Your task to perform on an android device: Open Google Image 0: 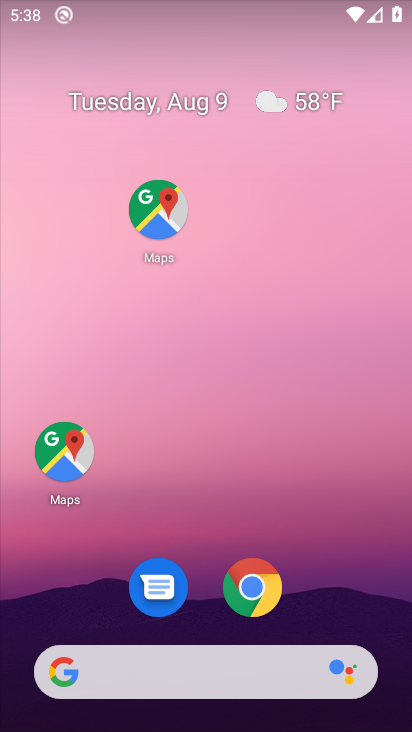
Step 0: drag from (103, 521) to (118, 168)
Your task to perform on an android device: Open Google Image 1: 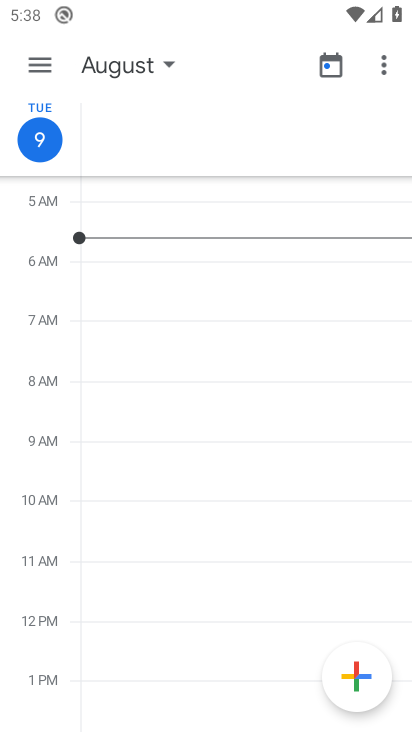
Step 1: press back button
Your task to perform on an android device: Open Google Image 2: 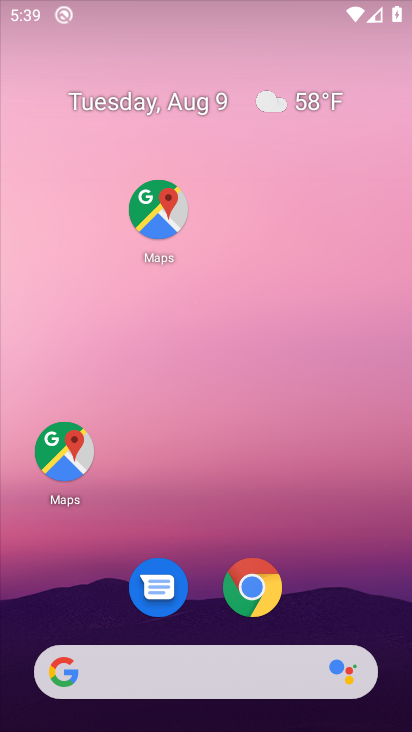
Step 2: drag from (261, 605) to (251, 104)
Your task to perform on an android device: Open Google Image 3: 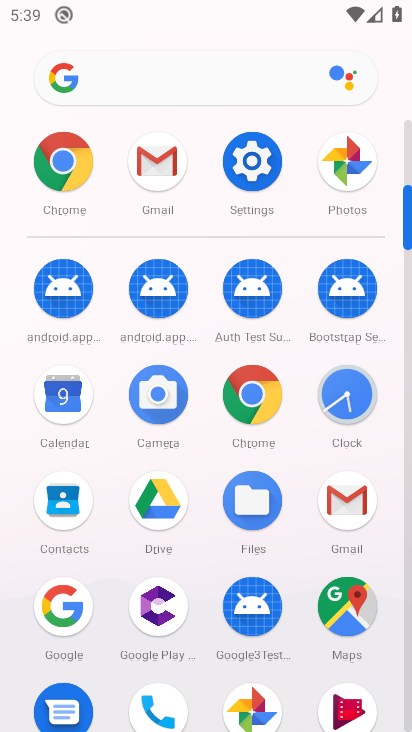
Step 3: click (65, 619)
Your task to perform on an android device: Open Google Image 4: 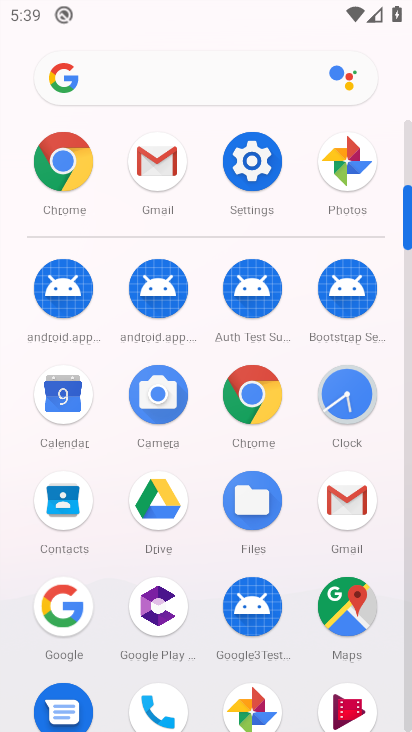
Step 4: click (66, 613)
Your task to perform on an android device: Open Google Image 5: 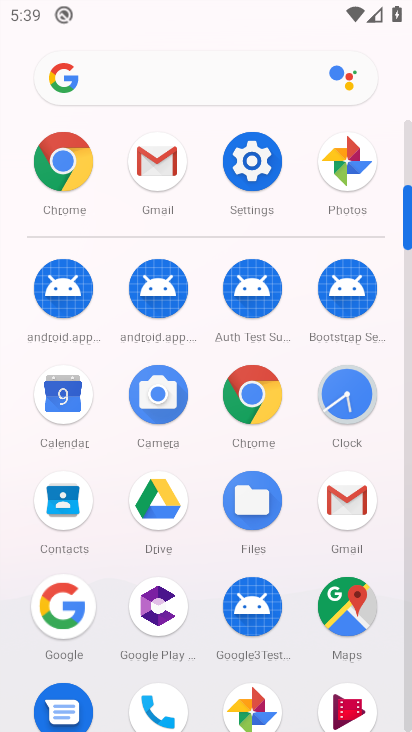
Step 5: click (59, 622)
Your task to perform on an android device: Open Google Image 6: 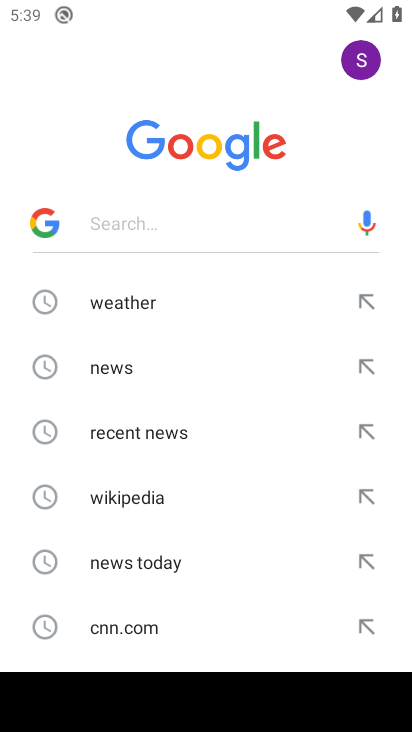
Step 6: task complete